Your task to perform on an android device: Search for Mexican restaurants on Maps Image 0: 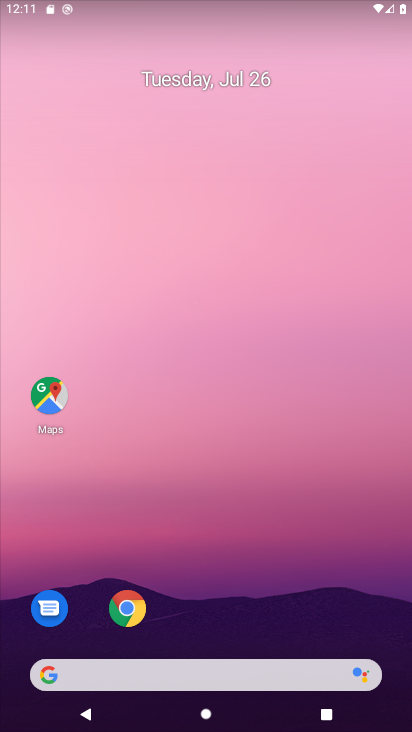
Step 0: click (60, 393)
Your task to perform on an android device: Search for Mexican restaurants on Maps Image 1: 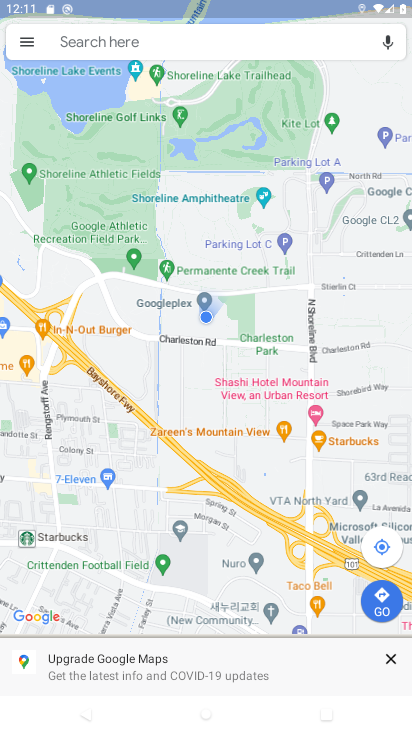
Step 1: click (169, 45)
Your task to perform on an android device: Search for Mexican restaurants on Maps Image 2: 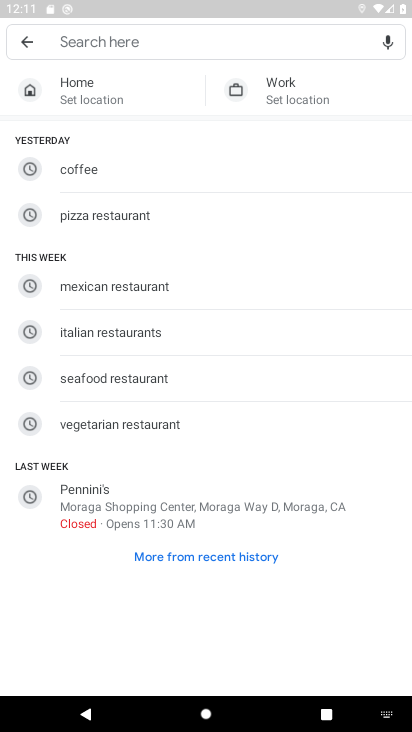
Step 2: click (206, 42)
Your task to perform on an android device: Search for Mexican restaurants on Maps Image 3: 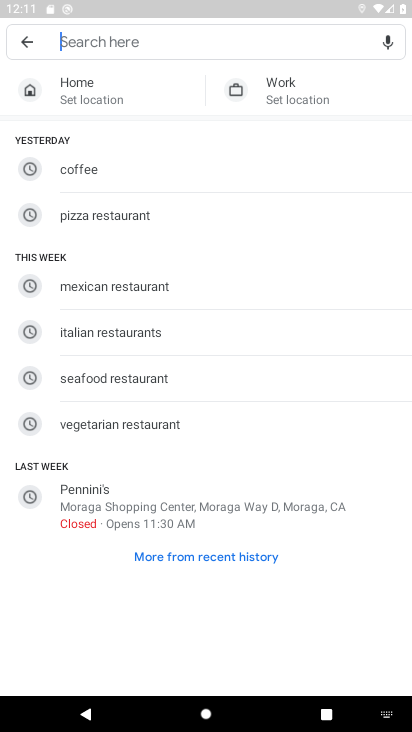
Step 3: type "Mexican restaurants"
Your task to perform on an android device: Search for Mexican restaurants on Maps Image 4: 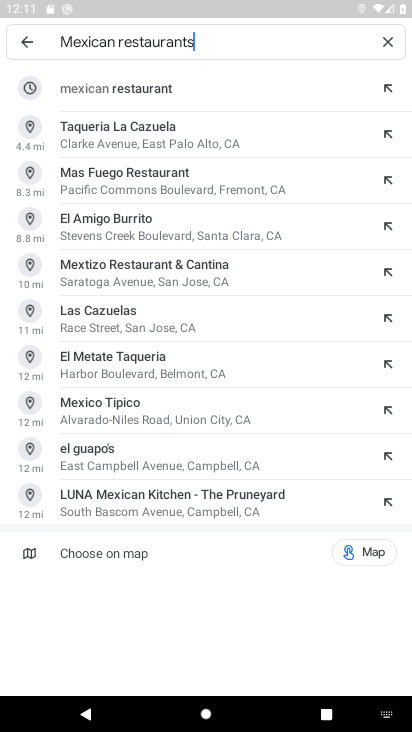
Step 4: click (111, 85)
Your task to perform on an android device: Search for Mexican restaurants on Maps Image 5: 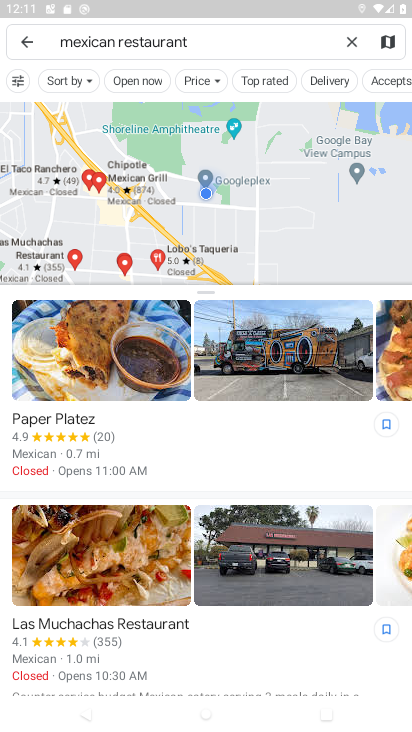
Step 5: task complete